Your task to perform on an android device: Open Chrome and go to the settings page Image 0: 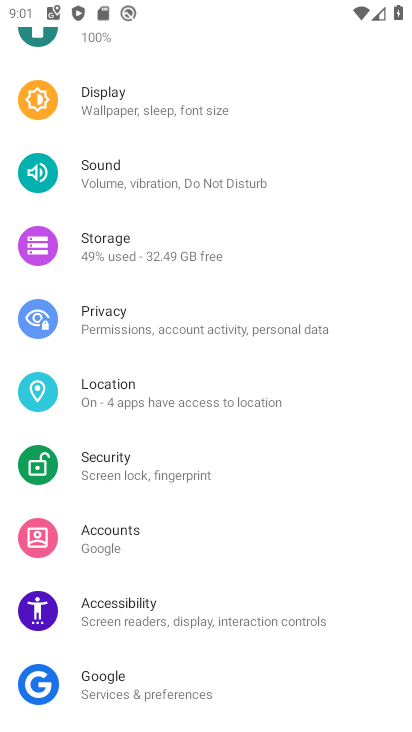
Step 0: press home button
Your task to perform on an android device: Open Chrome and go to the settings page Image 1: 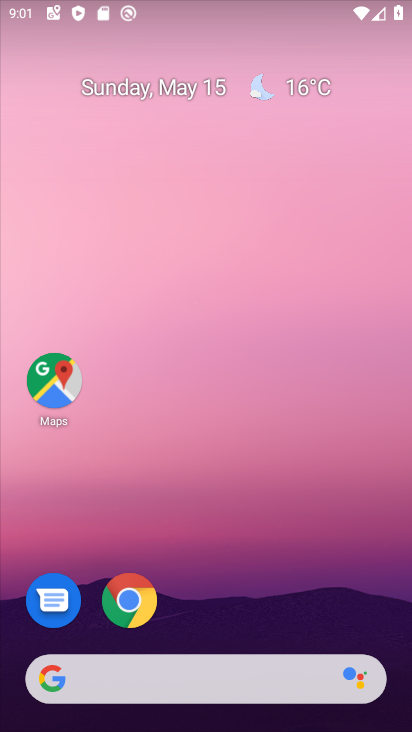
Step 1: click (130, 599)
Your task to perform on an android device: Open Chrome and go to the settings page Image 2: 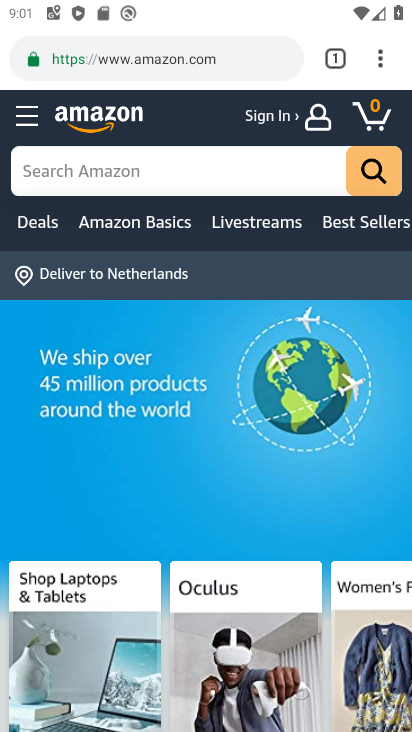
Step 2: click (371, 56)
Your task to perform on an android device: Open Chrome and go to the settings page Image 3: 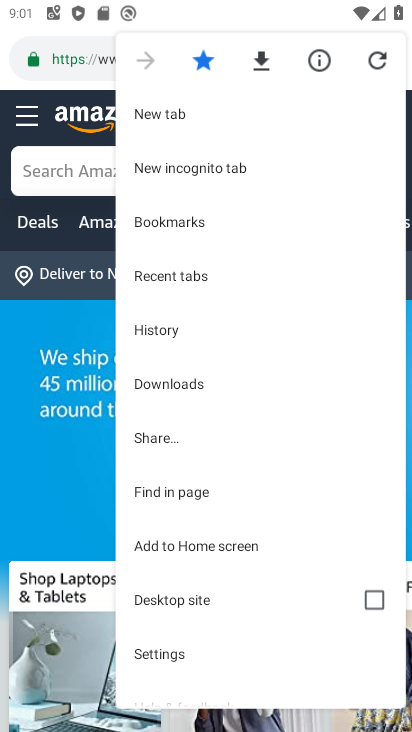
Step 3: click (181, 648)
Your task to perform on an android device: Open Chrome and go to the settings page Image 4: 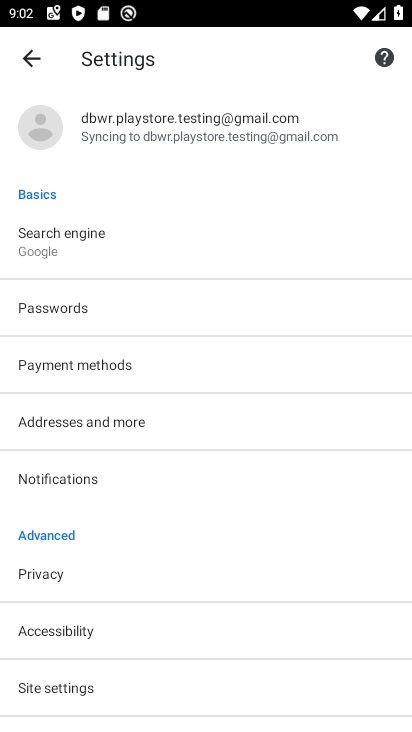
Step 4: task complete